Your task to perform on an android device: turn on javascript in the chrome app Image 0: 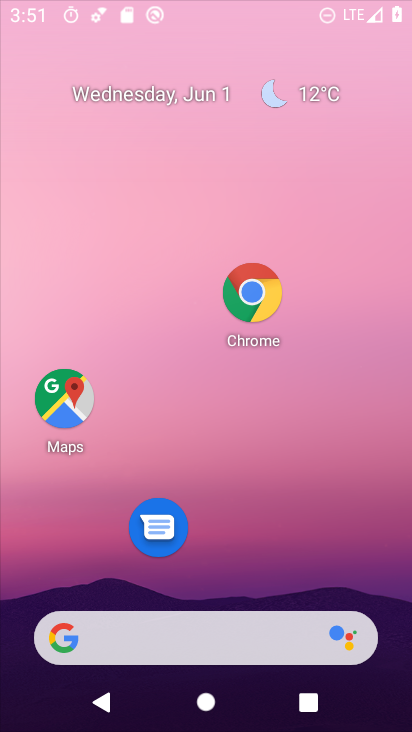
Step 0: drag from (329, 465) to (355, 167)
Your task to perform on an android device: turn on javascript in the chrome app Image 1: 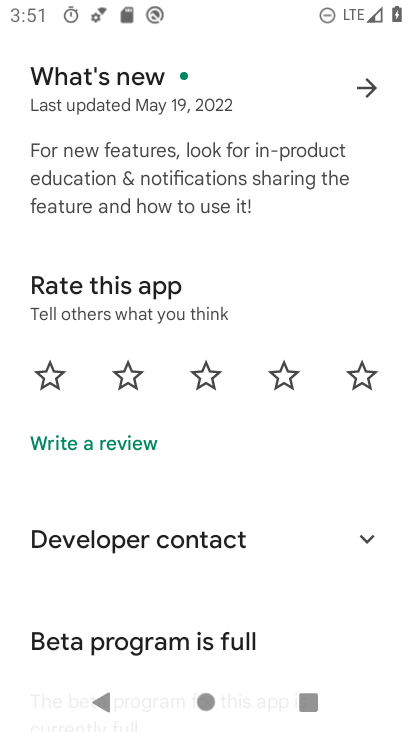
Step 1: press home button
Your task to perform on an android device: turn on javascript in the chrome app Image 2: 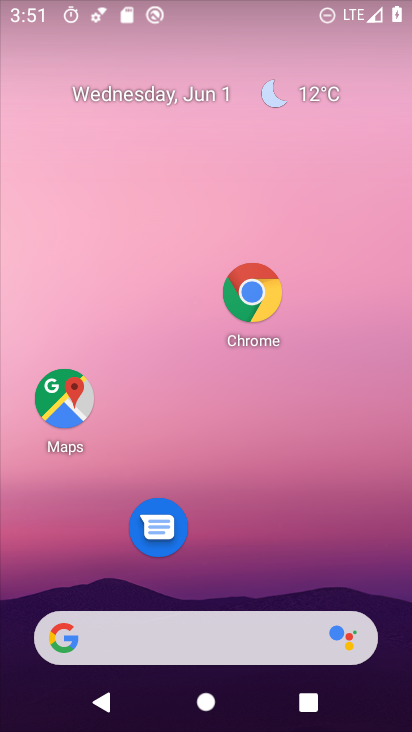
Step 2: drag from (327, 623) to (349, 250)
Your task to perform on an android device: turn on javascript in the chrome app Image 3: 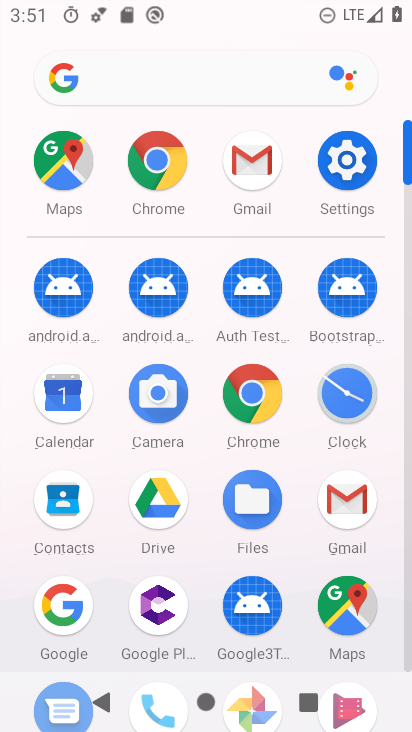
Step 3: click (157, 172)
Your task to perform on an android device: turn on javascript in the chrome app Image 4: 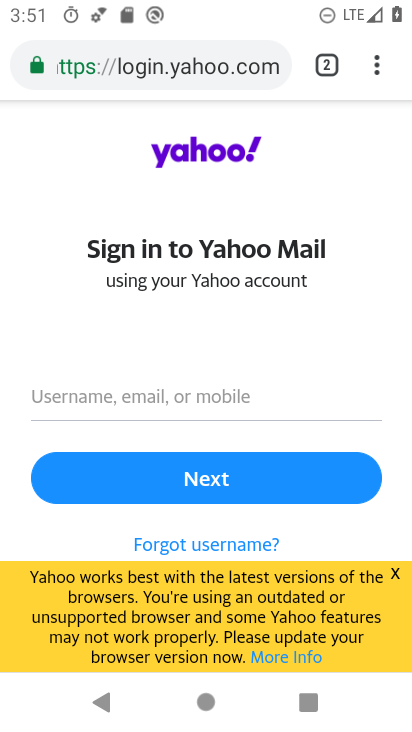
Step 4: click (383, 58)
Your task to perform on an android device: turn on javascript in the chrome app Image 5: 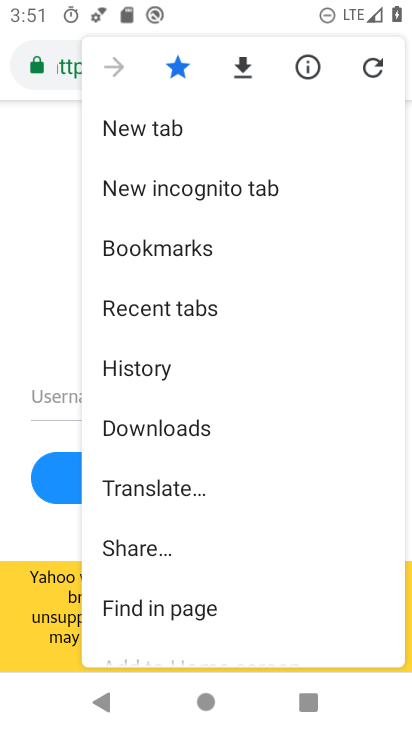
Step 5: drag from (254, 471) to (276, 214)
Your task to perform on an android device: turn on javascript in the chrome app Image 6: 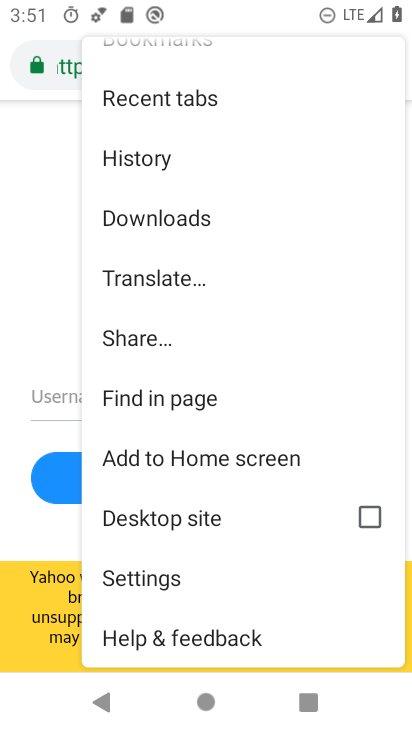
Step 6: drag from (231, 472) to (254, 273)
Your task to perform on an android device: turn on javascript in the chrome app Image 7: 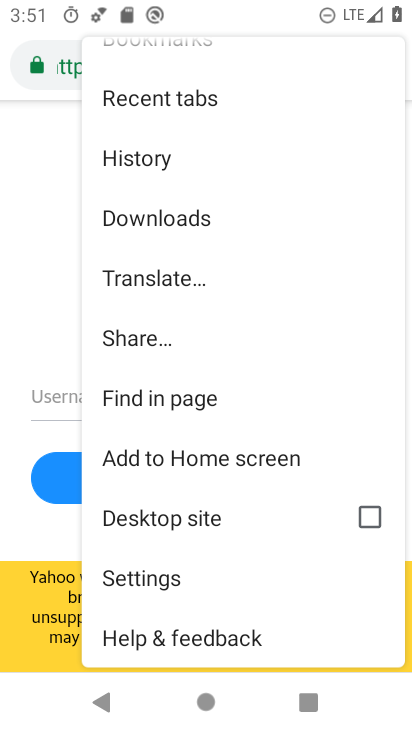
Step 7: click (163, 586)
Your task to perform on an android device: turn on javascript in the chrome app Image 8: 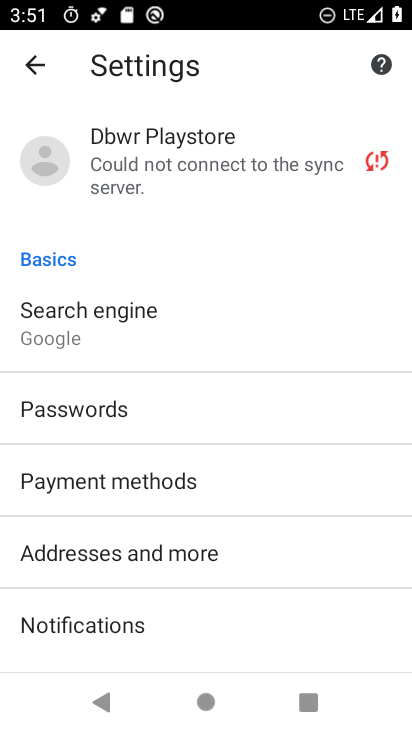
Step 8: drag from (213, 562) to (257, 270)
Your task to perform on an android device: turn on javascript in the chrome app Image 9: 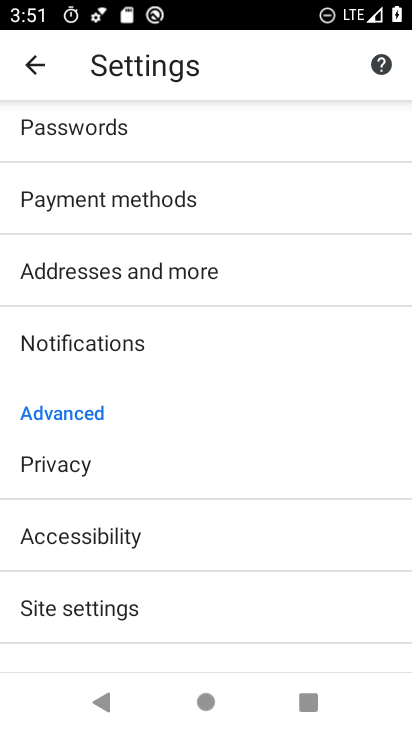
Step 9: drag from (263, 477) to (290, 280)
Your task to perform on an android device: turn on javascript in the chrome app Image 10: 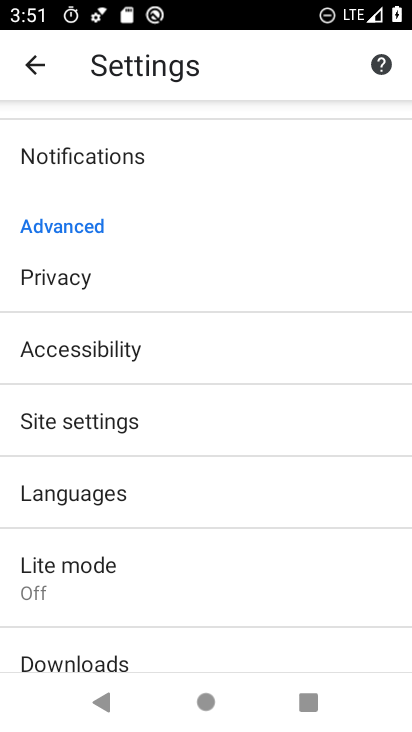
Step 10: click (197, 422)
Your task to perform on an android device: turn on javascript in the chrome app Image 11: 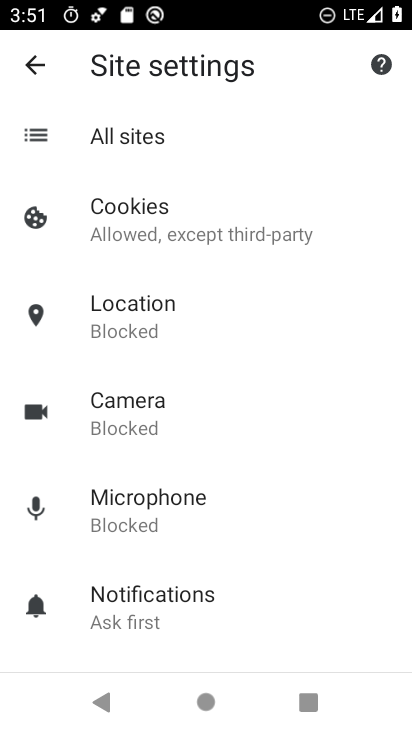
Step 11: drag from (187, 511) to (250, 155)
Your task to perform on an android device: turn on javascript in the chrome app Image 12: 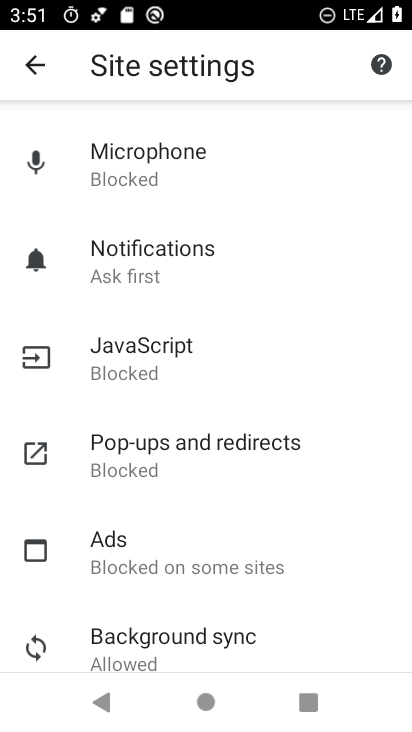
Step 12: click (191, 346)
Your task to perform on an android device: turn on javascript in the chrome app Image 13: 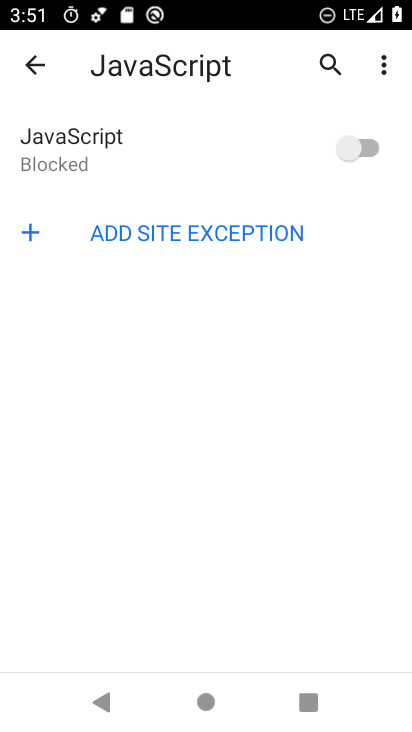
Step 13: click (371, 151)
Your task to perform on an android device: turn on javascript in the chrome app Image 14: 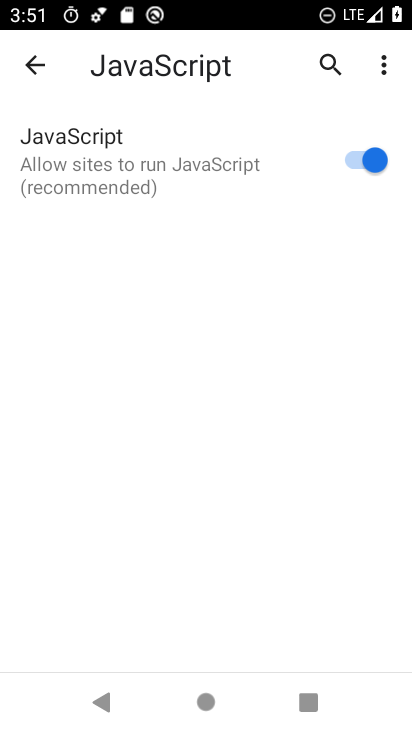
Step 14: task complete